Your task to perform on an android device: add a label to a message in the gmail app Image 0: 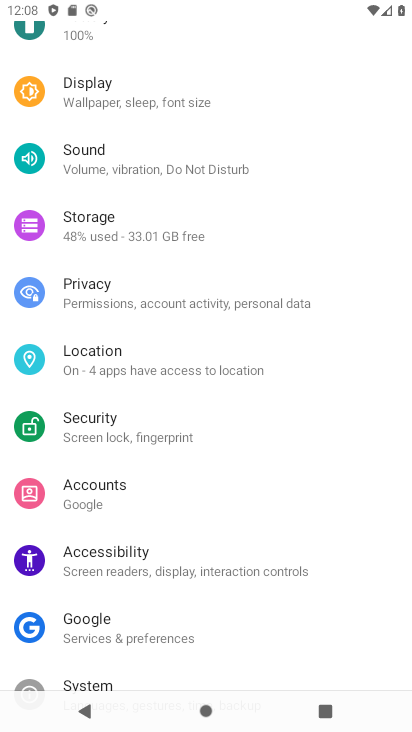
Step 0: press home button
Your task to perform on an android device: add a label to a message in the gmail app Image 1: 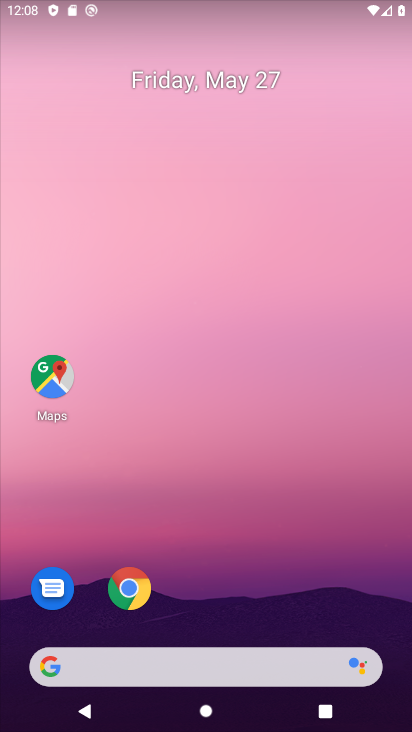
Step 1: drag from (212, 628) to (273, 77)
Your task to perform on an android device: add a label to a message in the gmail app Image 2: 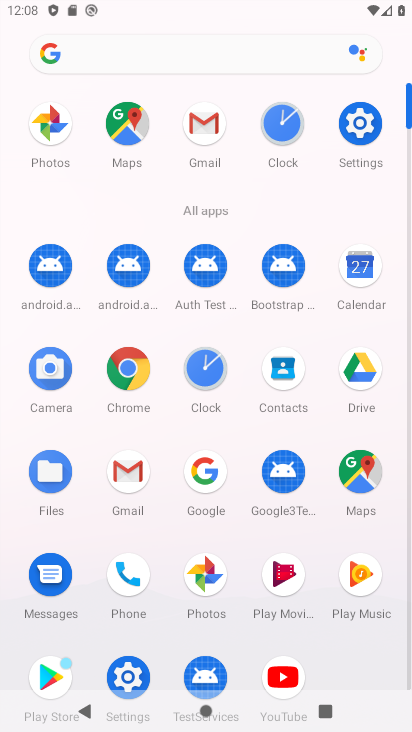
Step 2: click (124, 474)
Your task to perform on an android device: add a label to a message in the gmail app Image 3: 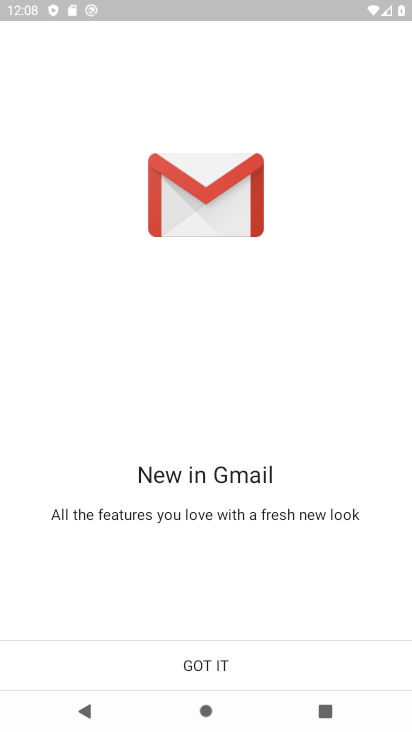
Step 3: click (205, 667)
Your task to perform on an android device: add a label to a message in the gmail app Image 4: 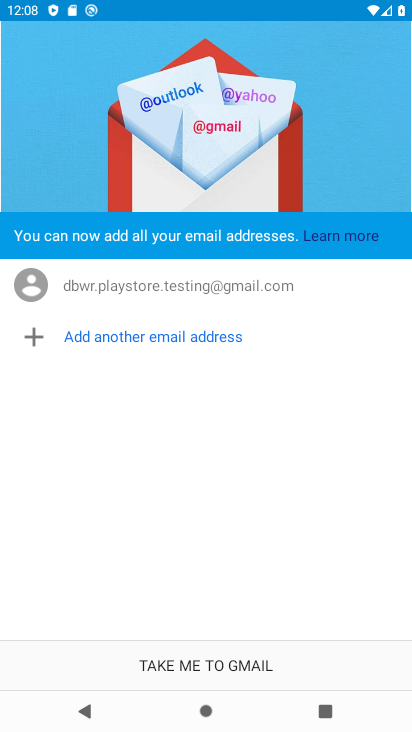
Step 4: click (207, 665)
Your task to perform on an android device: add a label to a message in the gmail app Image 5: 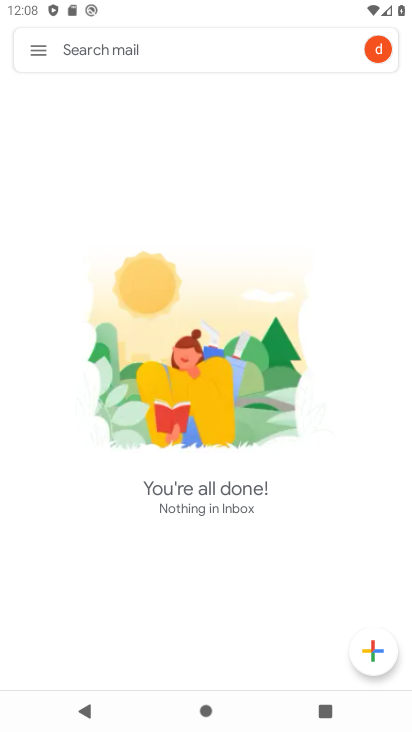
Step 5: task complete